Your task to perform on an android device: turn off airplane mode Image 0: 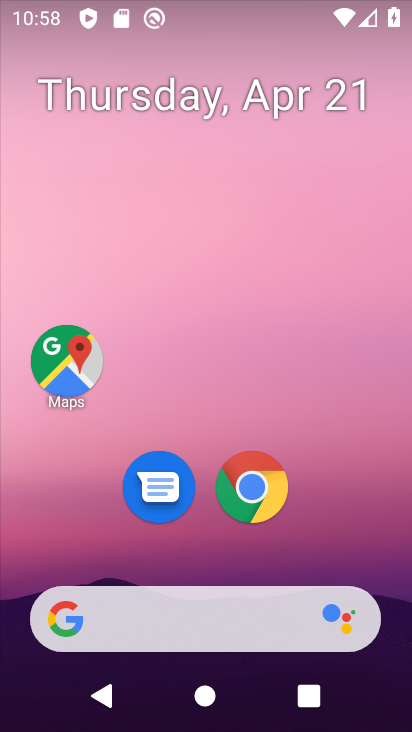
Step 0: drag from (210, 463) to (215, 6)
Your task to perform on an android device: turn off airplane mode Image 1: 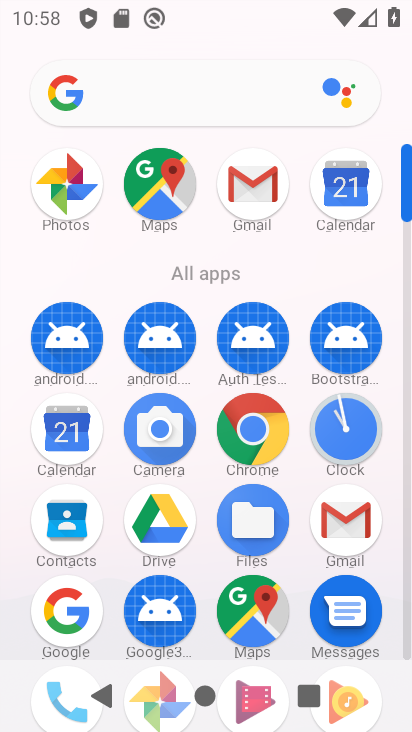
Step 1: drag from (108, 513) to (153, 166)
Your task to perform on an android device: turn off airplane mode Image 2: 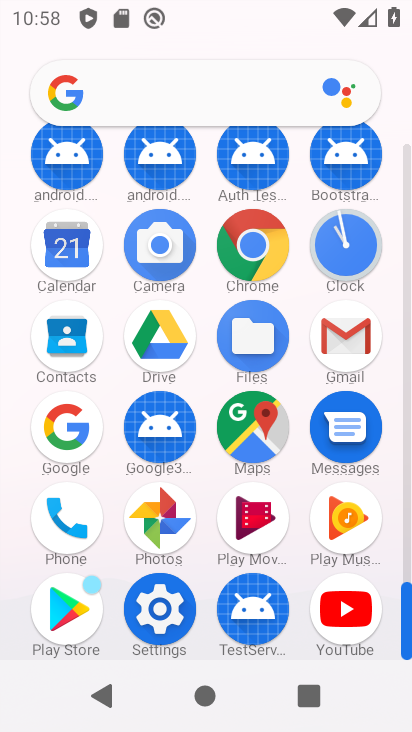
Step 2: click (159, 619)
Your task to perform on an android device: turn off airplane mode Image 3: 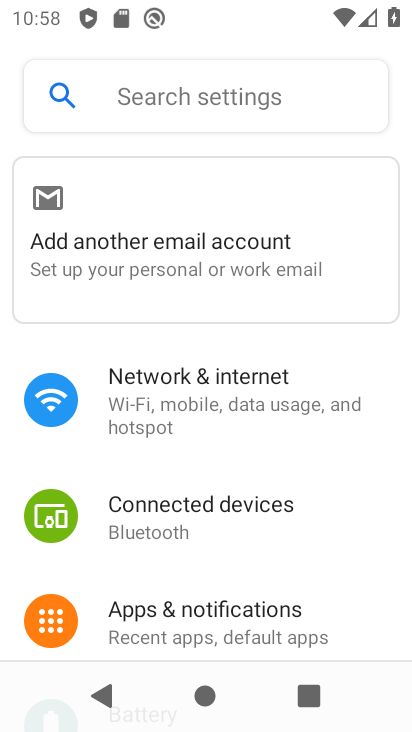
Step 3: click (207, 397)
Your task to perform on an android device: turn off airplane mode Image 4: 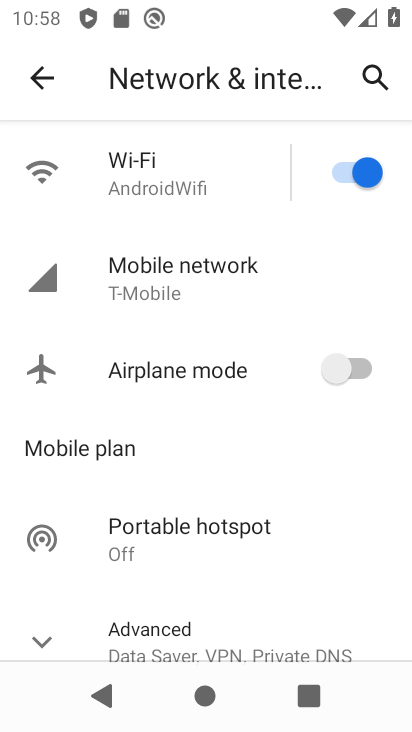
Step 4: task complete